Your task to perform on an android device: open chrome privacy settings Image 0: 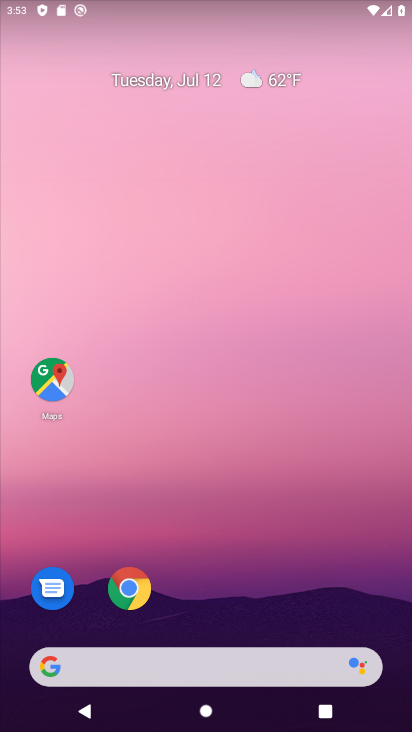
Step 0: click (317, 0)
Your task to perform on an android device: open chrome privacy settings Image 1: 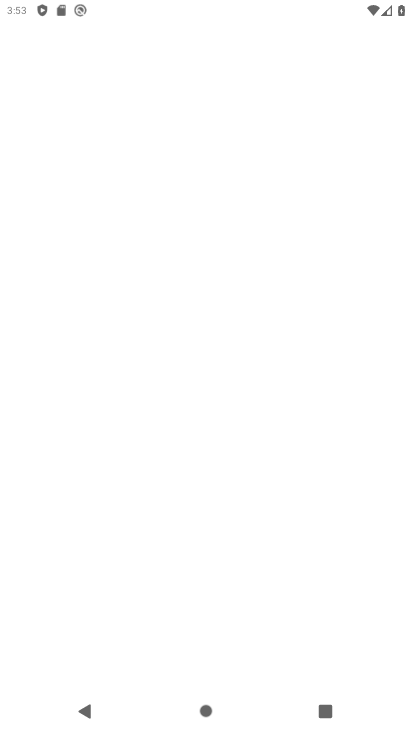
Step 1: drag from (322, 598) to (300, 98)
Your task to perform on an android device: open chrome privacy settings Image 2: 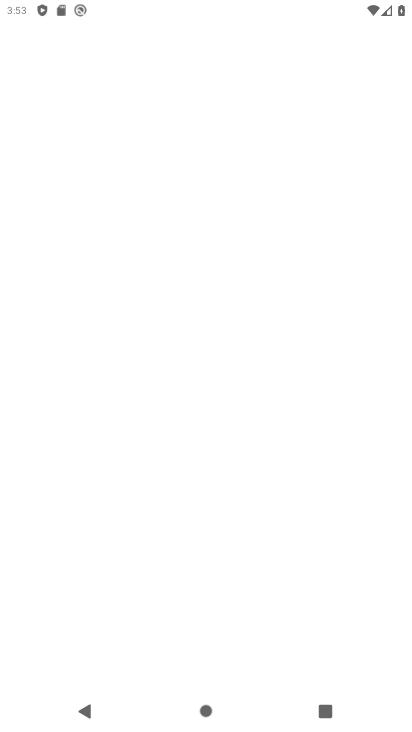
Step 2: press home button
Your task to perform on an android device: open chrome privacy settings Image 3: 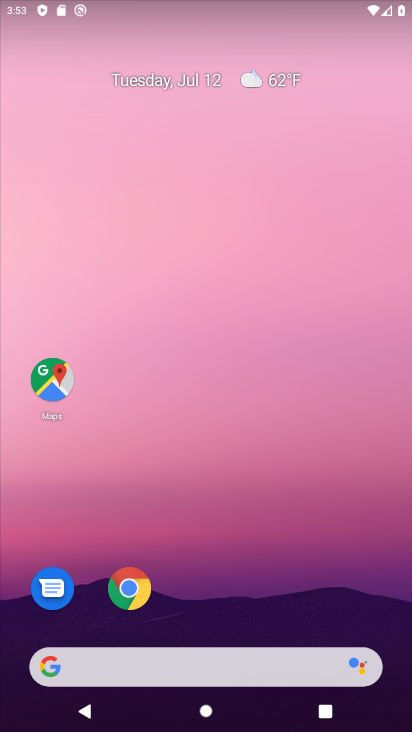
Step 3: drag from (255, 594) to (268, 44)
Your task to perform on an android device: open chrome privacy settings Image 4: 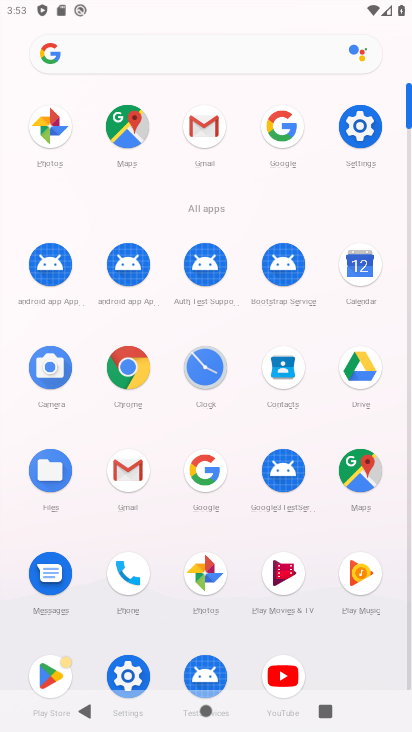
Step 4: click (138, 369)
Your task to perform on an android device: open chrome privacy settings Image 5: 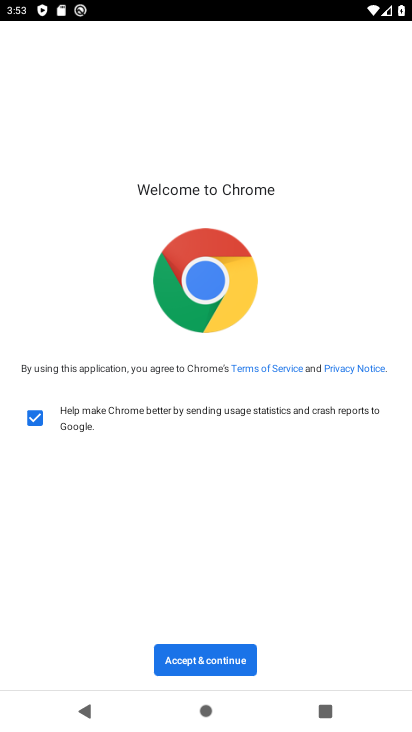
Step 5: click (229, 655)
Your task to perform on an android device: open chrome privacy settings Image 6: 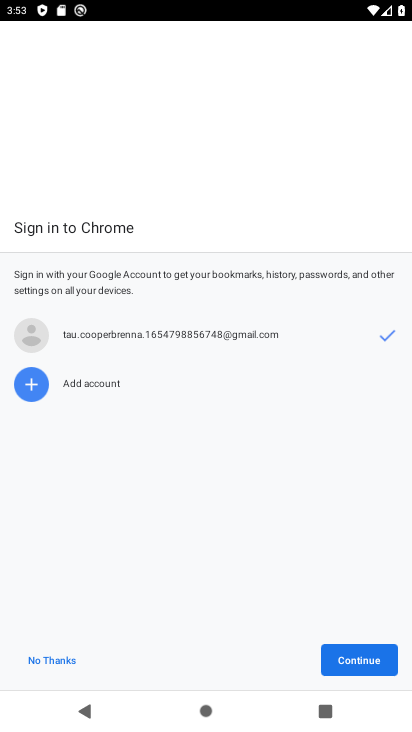
Step 6: click (60, 665)
Your task to perform on an android device: open chrome privacy settings Image 7: 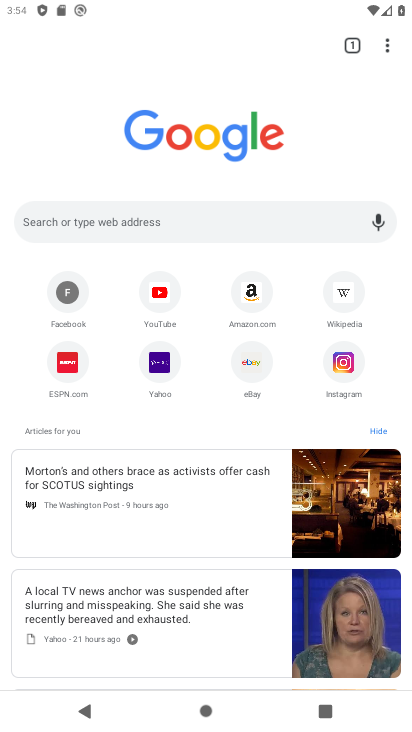
Step 7: drag from (393, 49) to (246, 389)
Your task to perform on an android device: open chrome privacy settings Image 8: 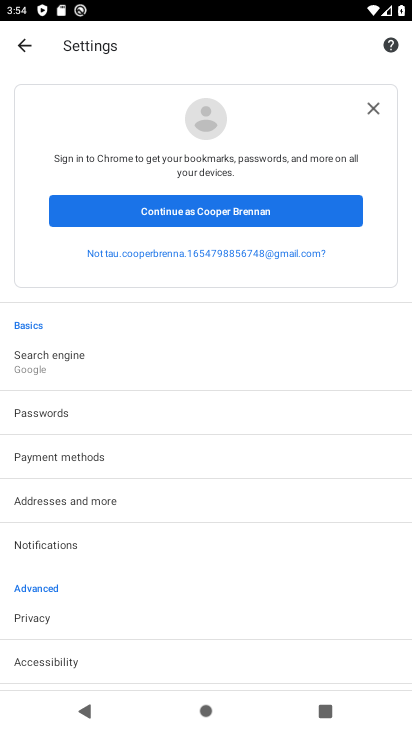
Step 8: drag from (81, 608) to (180, 218)
Your task to perform on an android device: open chrome privacy settings Image 9: 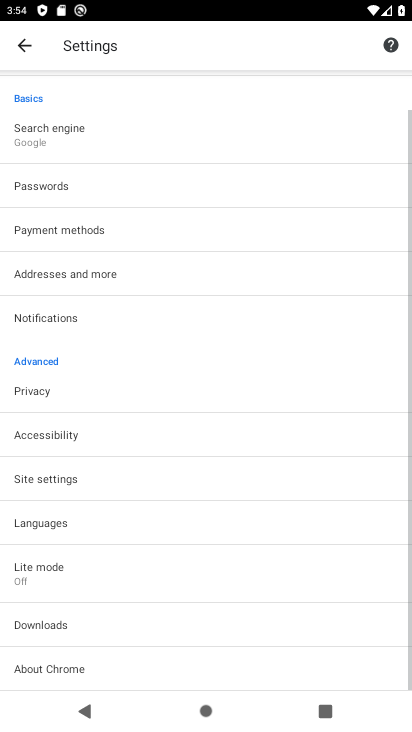
Step 9: click (77, 401)
Your task to perform on an android device: open chrome privacy settings Image 10: 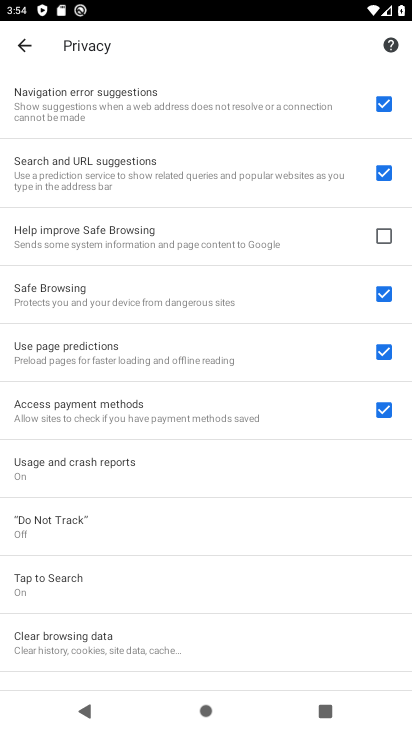
Step 10: task complete